Your task to perform on an android device: What's the weather? Image 0: 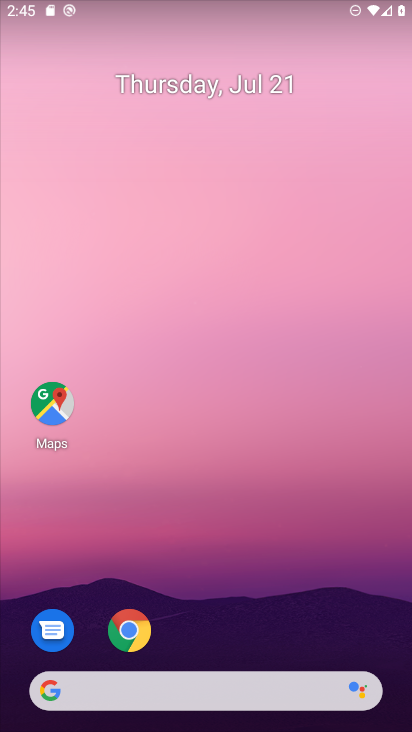
Step 0: click (165, 683)
Your task to perform on an android device: What's the weather? Image 1: 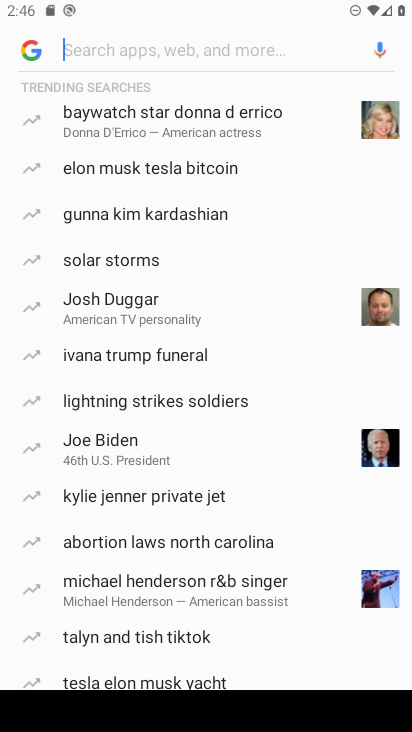
Step 1: click (103, 47)
Your task to perform on an android device: What's the weather? Image 2: 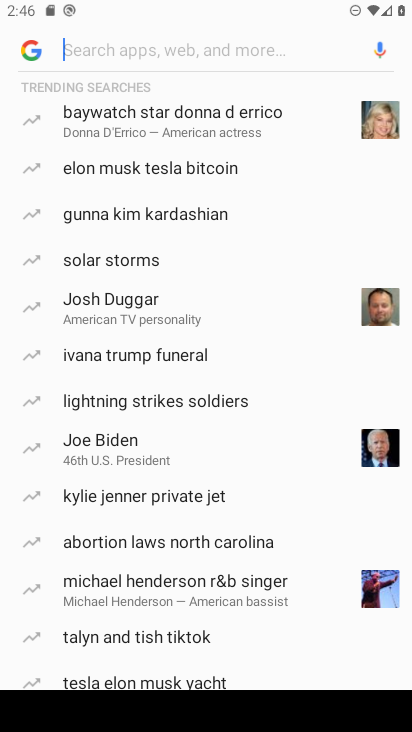
Step 2: type "weather"
Your task to perform on an android device: What's the weather? Image 3: 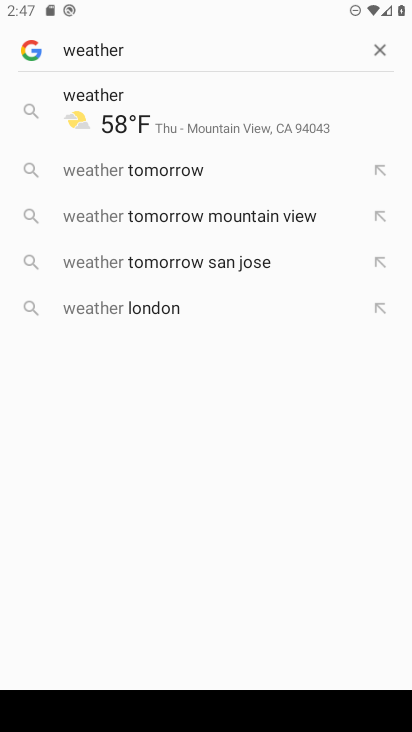
Step 3: click (134, 99)
Your task to perform on an android device: What's the weather? Image 4: 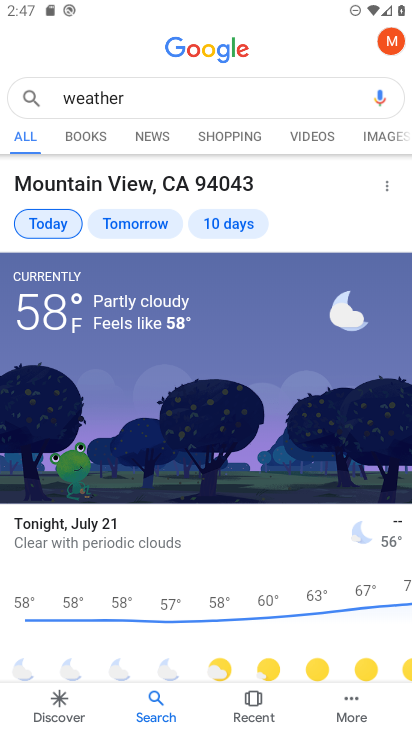
Step 4: task complete